Your task to perform on an android device: snooze an email in the gmail app Image 0: 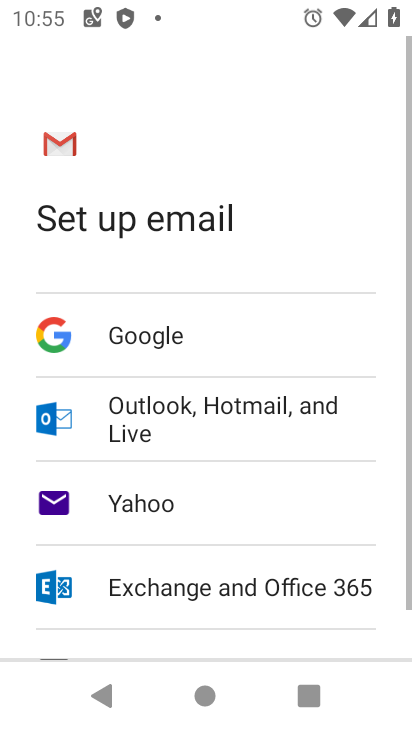
Step 0: press home button
Your task to perform on an android device: snooze an email in the gmail app Image 1: 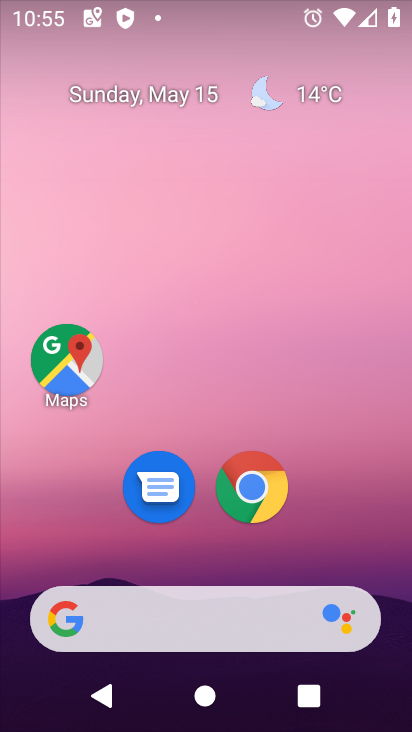
Step 1: drag from (403, 635) to (344, 139)
Your task to perform on an android device: snooze an email in the gmail app Image 2: 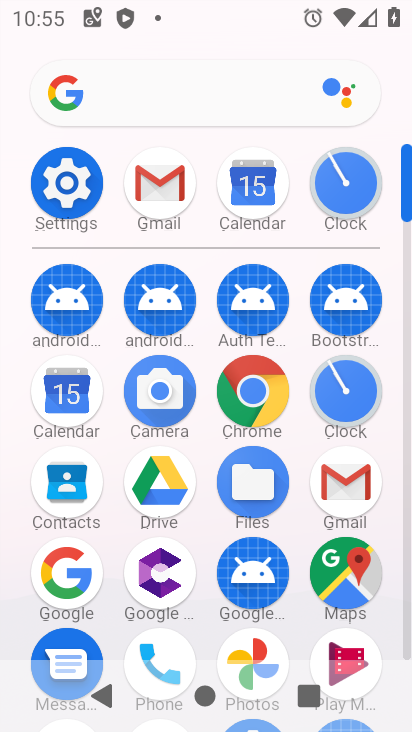
Step 2: click (408, 648)
Your task to perform on an android device: snooze an email in the gmail app Image 3: 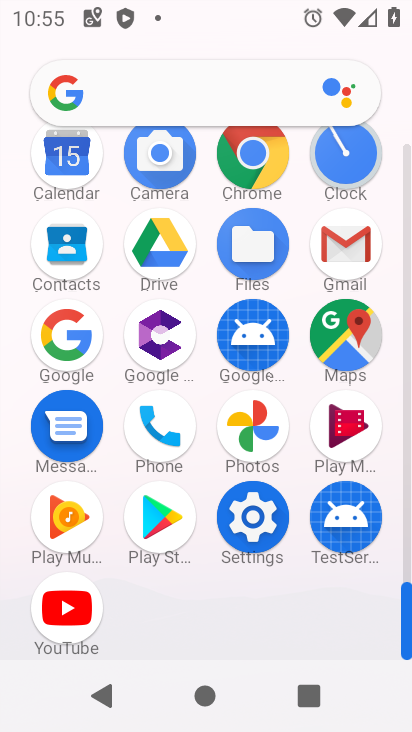
Step 3: click (346, 241)
Your task to perform on an android device: snooze an email in the gmail app Image 4: 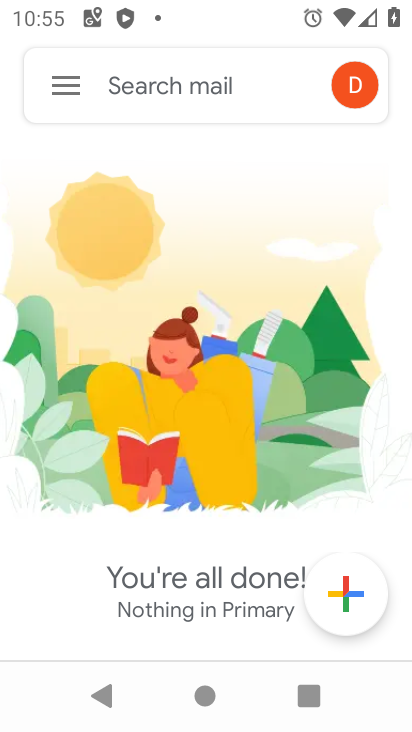
Step 4: click (65, 84)
Your task to perform on an android device: snooze an email in the gmail app Image 5: 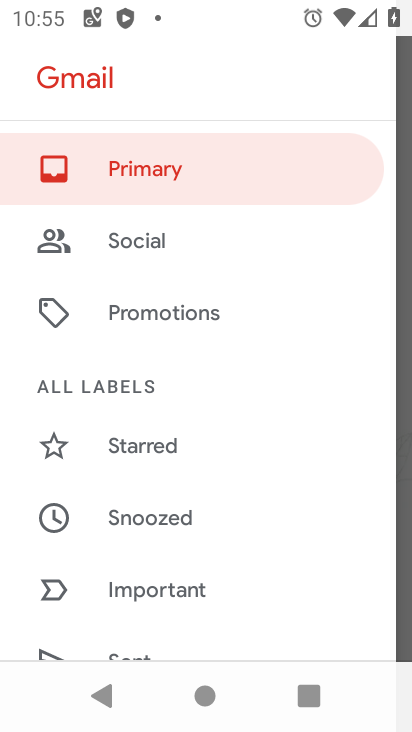
Step 5: drag from (238, 604) to (233, 124)
Your task to perform on an android device: snooze an email in the gmail app Image 6: 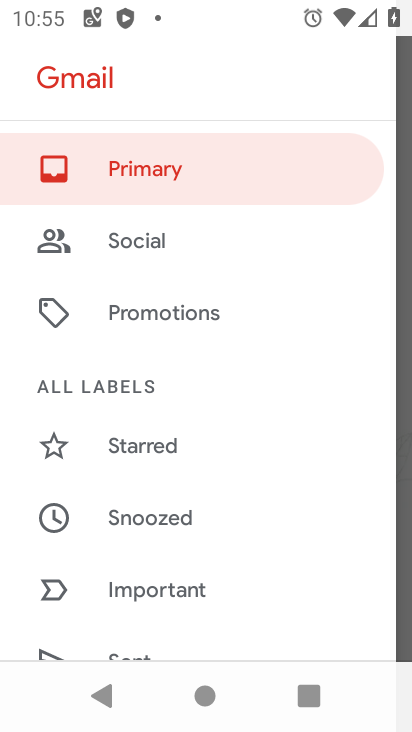
Step 6: drag from (225, 611) to (257, 132)
Your task to perform on an android device: snooze an email in the gmail app Image 7: 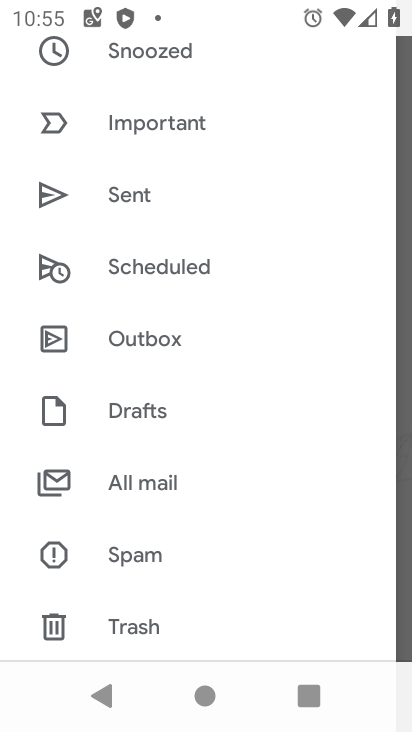
Step 7: click (135, 475)
Your task to perform on an android device: snooze an email in the gmail app Image 8: 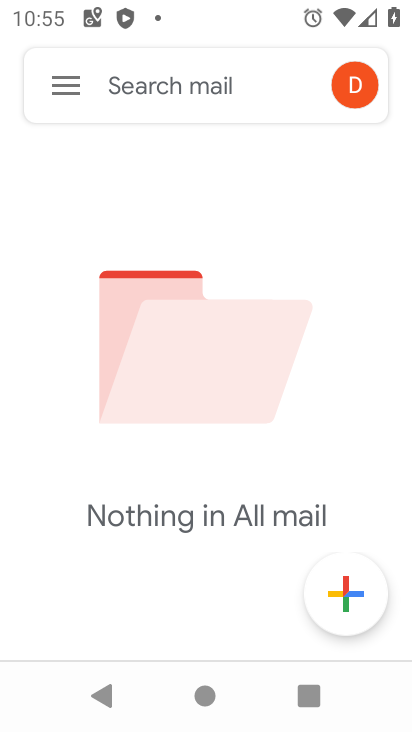
Step 8: task complete